Your task to perform on an android device: Open wifi settings Image 0: 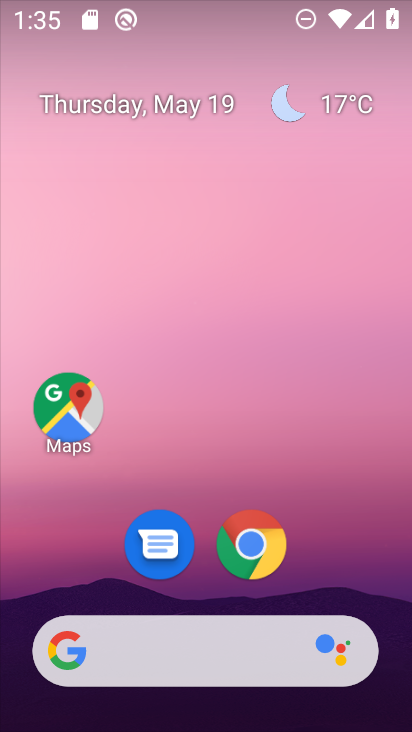
Step 0: drag from (204, 721) to (207, 46)
Your task to perform on an android device: Open wifi settings Image 1: 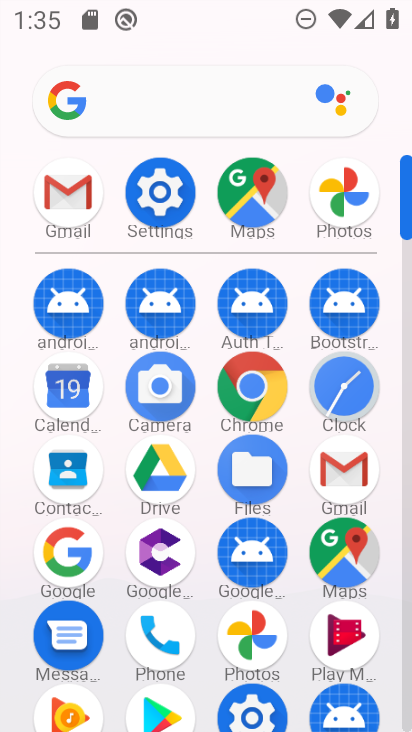
Step 1: click (160, 187)
Your task to perform on an android device: Open wifi settings Image 2: 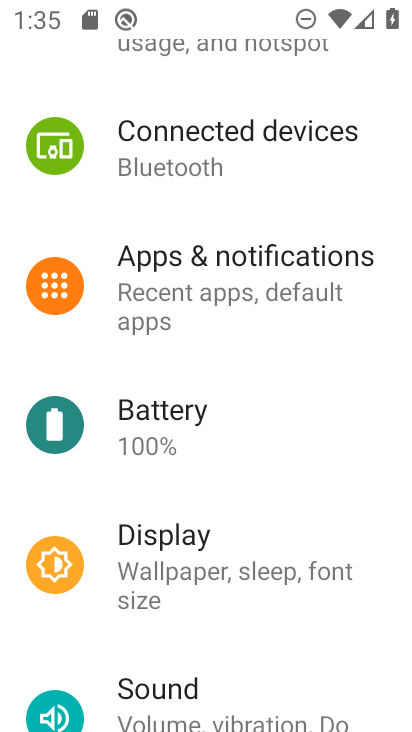
Step 2: drag from (239, 209) to (236, 645)
Your task to perform on an android device: Open wifi settings Image 3: 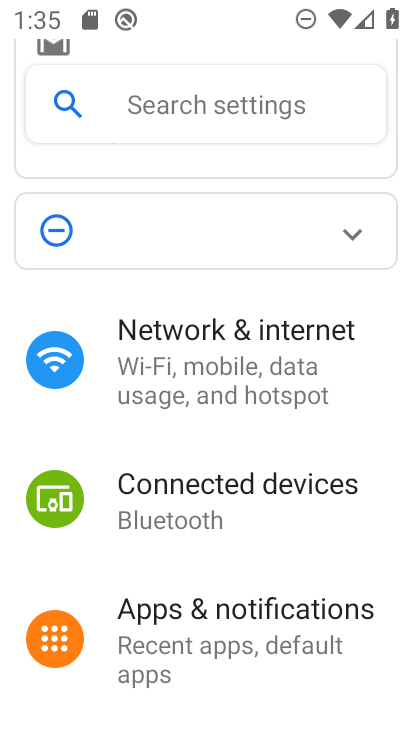
Step 3: click (235, 373)
Your task to perform on an android device: Open wifi settings Image 4: 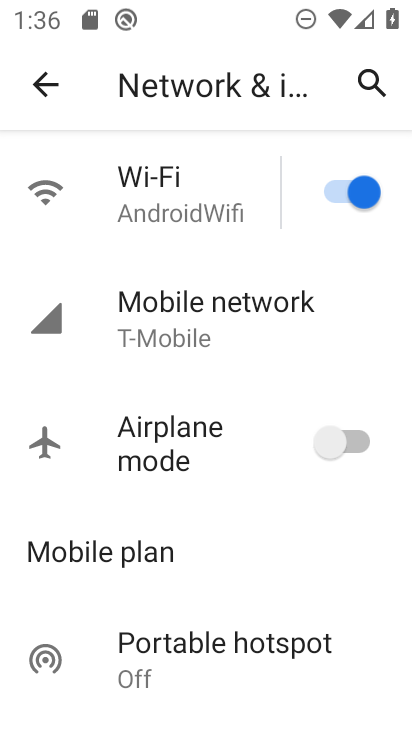
Step 4: click (163, 218)
Your task to perform on an android device: Open wifi settings Image 5: 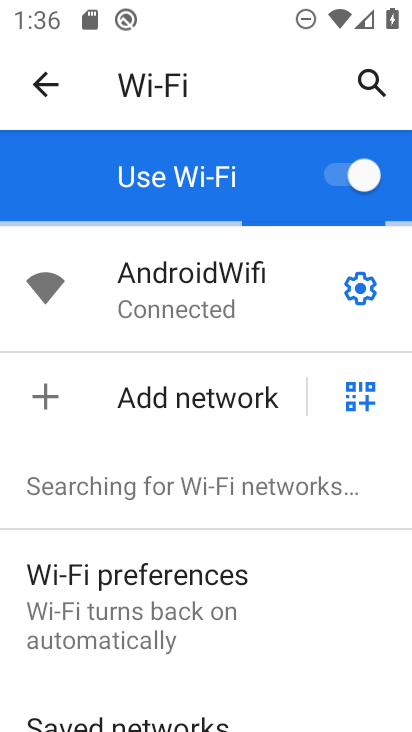
Step 5: task complete